Your task to perform on an android device: Open Youtube and go to the subscriptions tab Image 0: 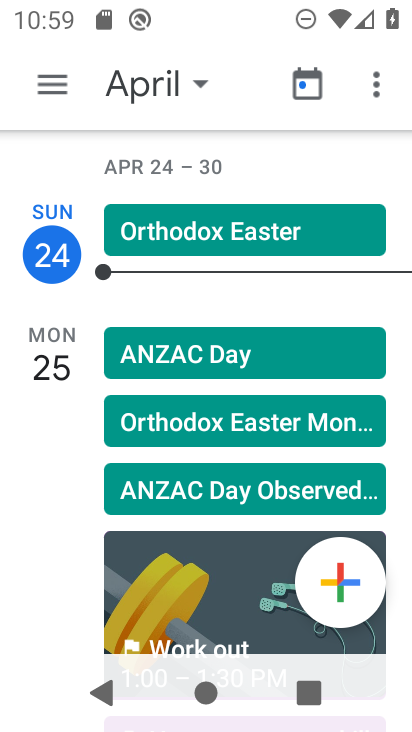
Step 0: press home button
Your task to perform on an android device: Open Youtube and go to the subscriptions tab Image 1: 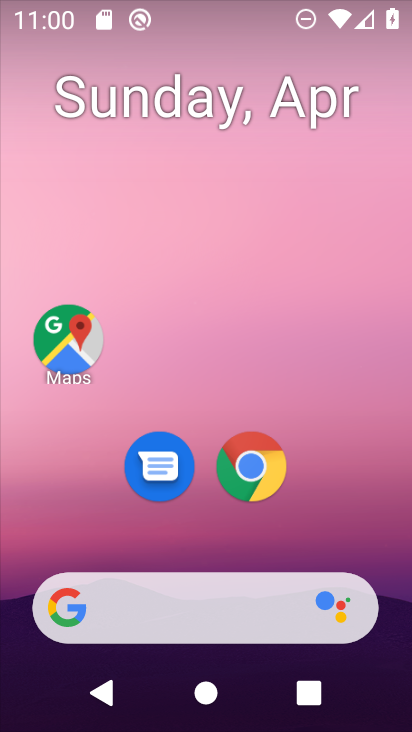
Step 1: drag from (350, 510) to (365, 77)
Your task to perform on an android device: Open Youtube and go to the subscriptions tab Image 2: 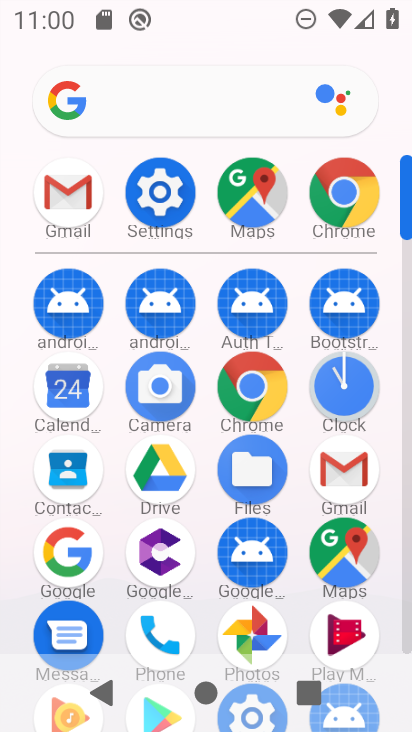
Step 2: drag from (391, 509) to (394, 173)
Your task to perform on an android device: Open Youtube and go to the subscriptions tab Image 3: 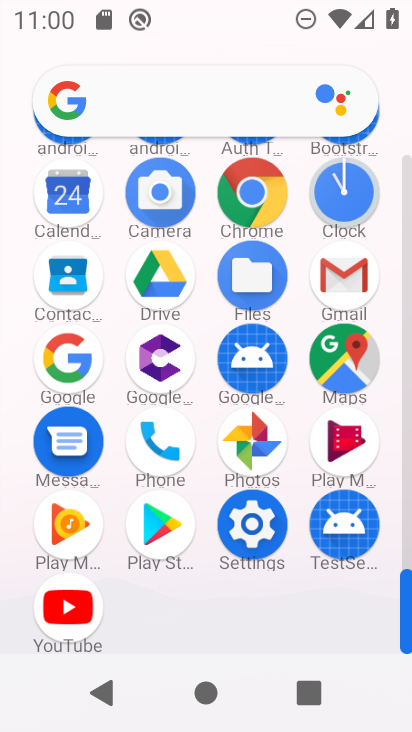
Step 3: click (63, 608)
Your task to perform on an android device: Open Youtube and go to the subscriptions tab Image 4: 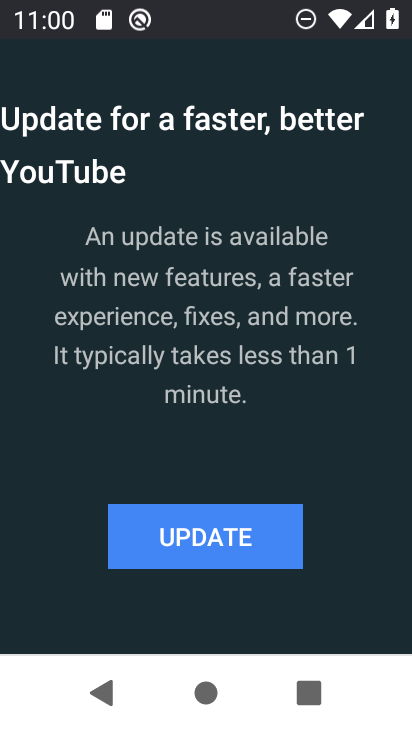
Step 4: click (246, 557)
Your task to perform on an android device: Open Youtube and go to the subscriptions tab Image 5: 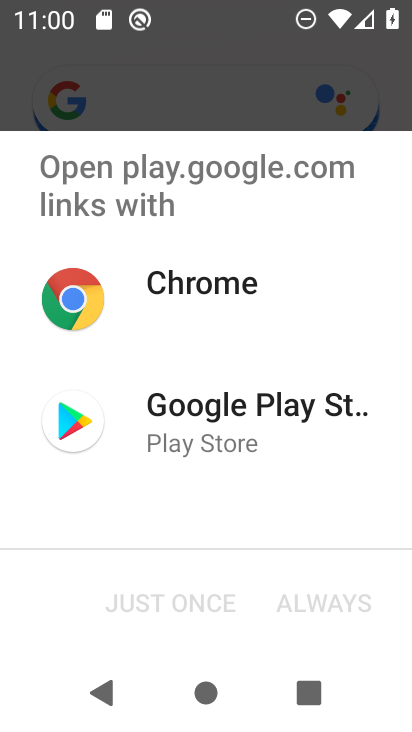
Step 5: click (200, 412)
Your task to perform on an android device: Open Youtube and go to the subscriptions tab Image 6: 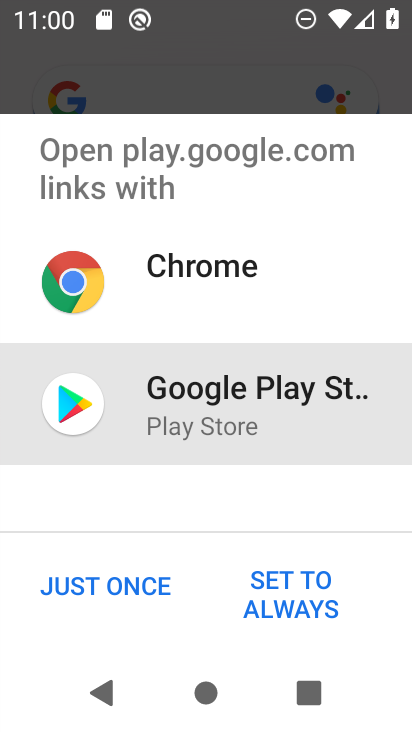
Step 6: click (140, 581)
Your task to perform on an android device: Open Youtube and go to the subscriptions tab Image 7: 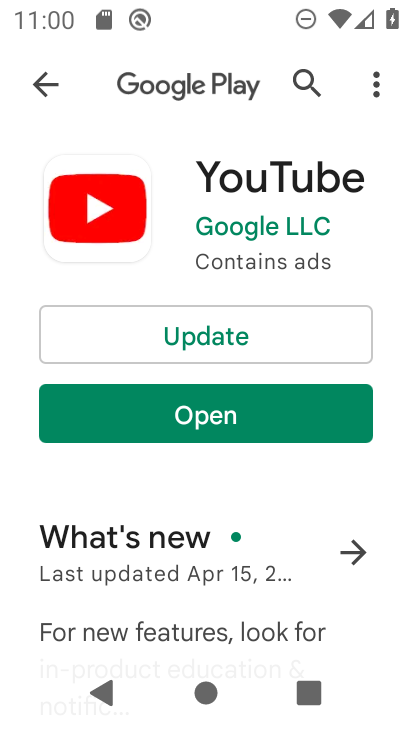
Step 7: click (260, 340)
Your task to perform on an android device: Open Youtube and go to the subscriptions tab Image 8: 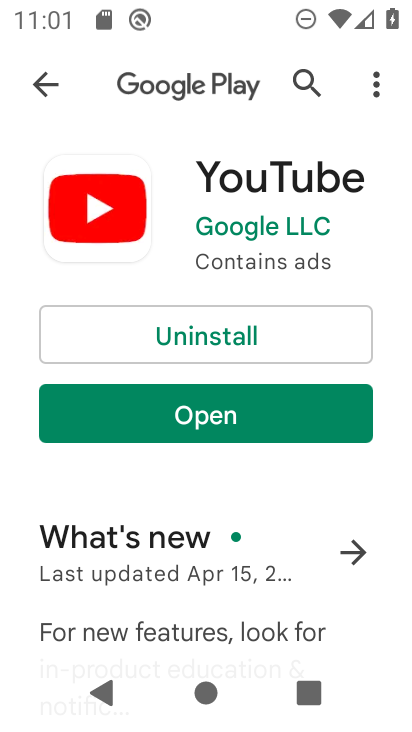
Step 8: click (333, 411)
Your task to perform on an android device: Open Youtube and go to the subscriptions tab Image 9: 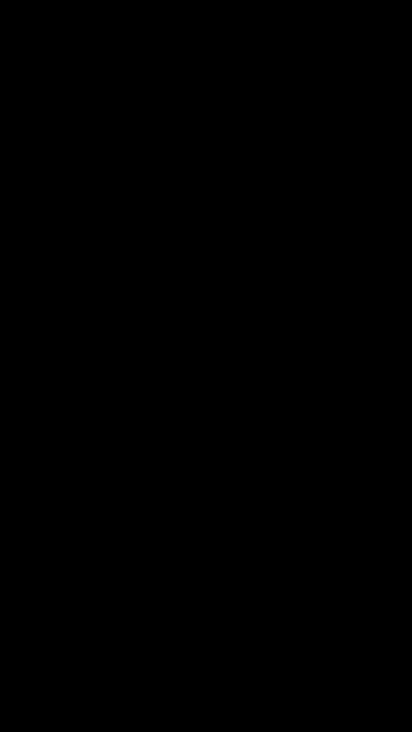
Step 9: click (287, 623)
Your task to perform on an android device: Open Youtube and go to the subscriptions tab Image 10: 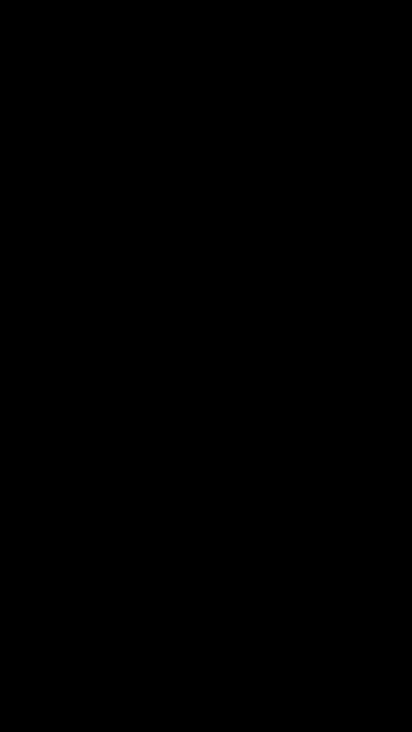
Step 10: task complete